Your task to perform on an android device: Go to Google Image 0: 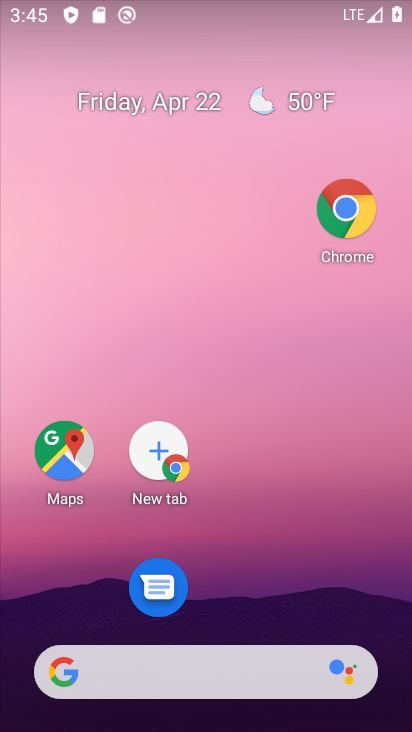
Step 0: click (155, 674)
Your task to perform on an android device: Go to Google Image 1: 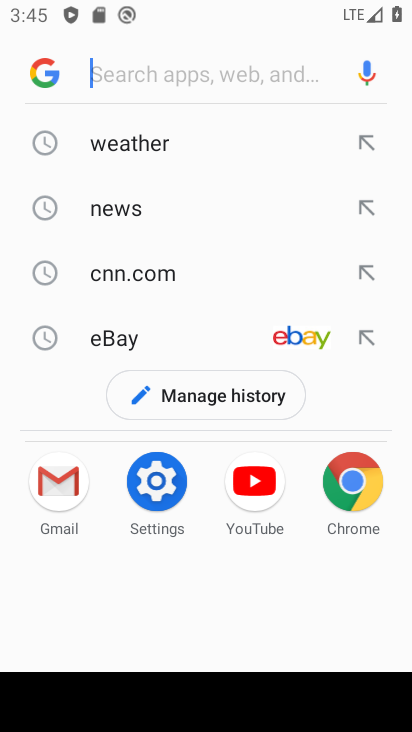
Step 1: task complete